Your task to perform on an android device: Is it going to rain today? Image 0: 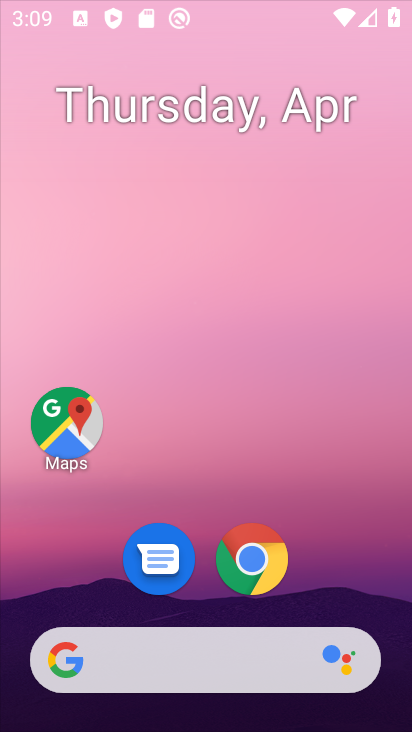
Step 0: click (229, 176)
Your task to perform on an android device: Is it going to rain today? Image 1: 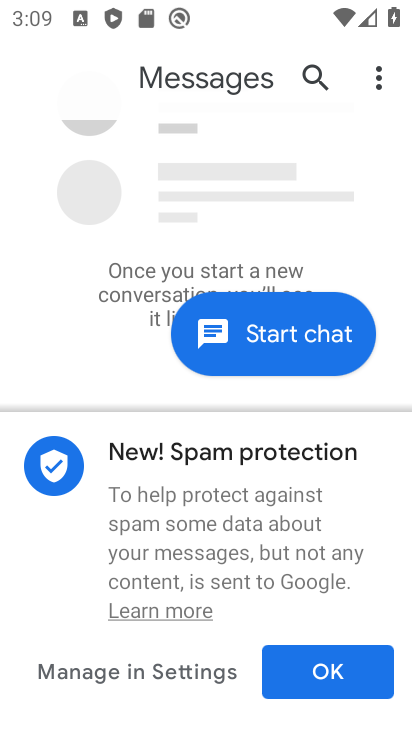
Step 1: press home button
Your task to perform on an android device: Is it going to rain today? Image 2: 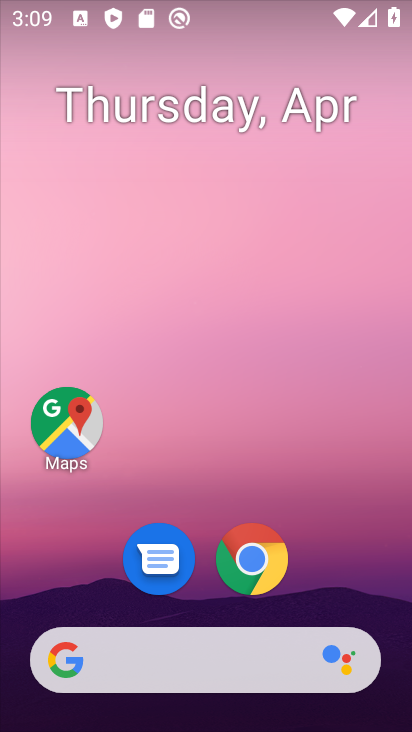
Step 2: drag from (199, 602) to (219, 173)
Your task to perform on an android device: Is it going to rain today? Image 3: 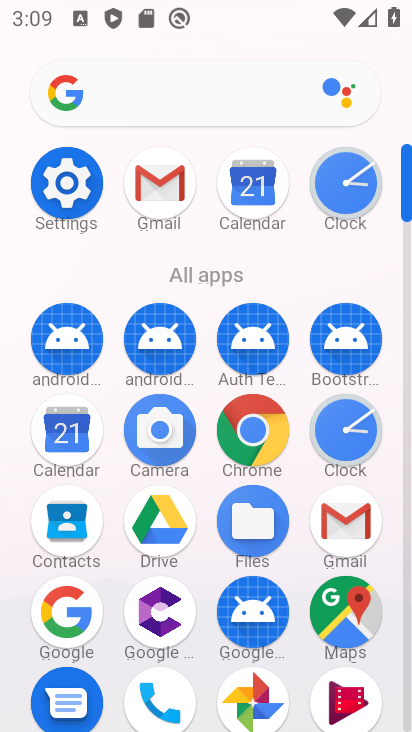
Step 3: click (74, 622)
Your task to perform on an android device: Is it going to rain today? Image 4: 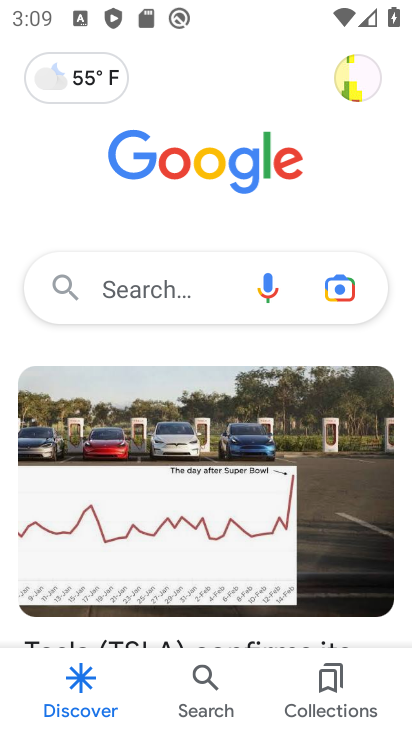
Step 4: click (175, 269)
Your task to perform on an android device: Is it going to rain today? Image 5: 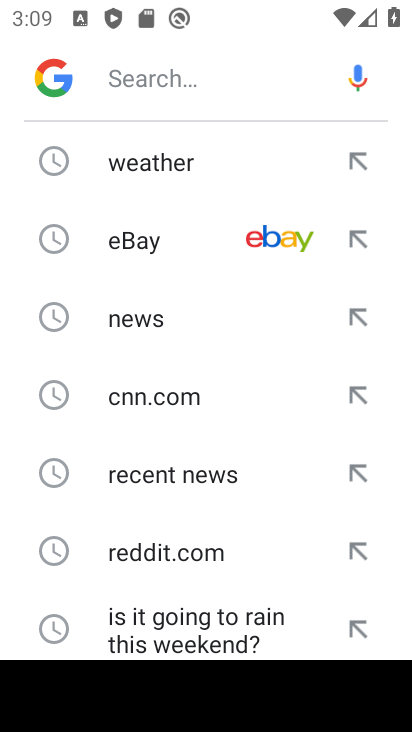
Step 5: click (139, 173)
Your task to perform on an android device: Is it going to rain today? Image 6: 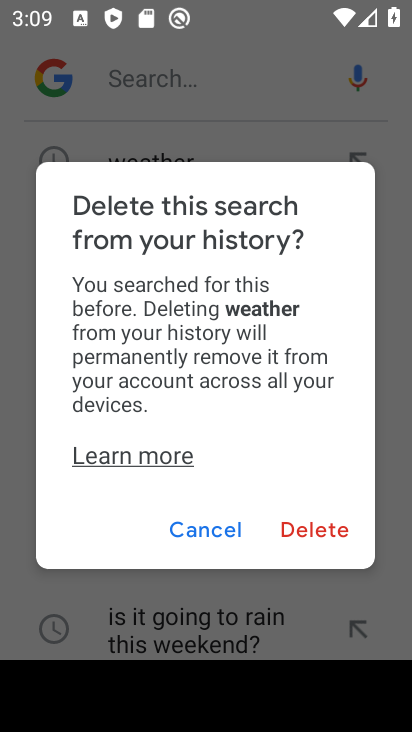
Step 6: click (207, 519)
Your task to perform on an android device: Is it going to rain today? Image 7: 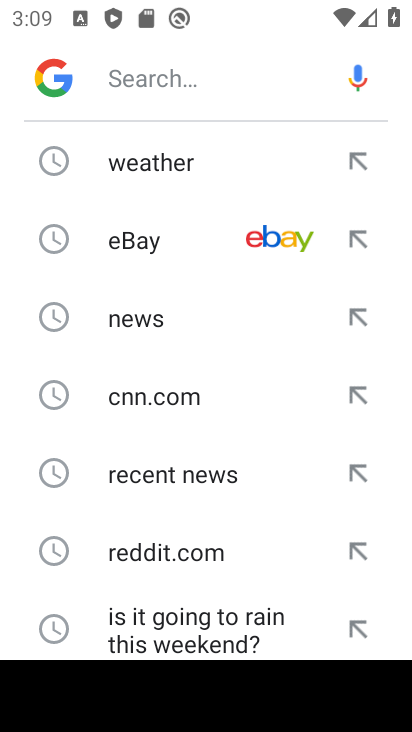
Step 7: click (113, 173)
Your task to perform on an android device: Is it going to rain today? Image 8: 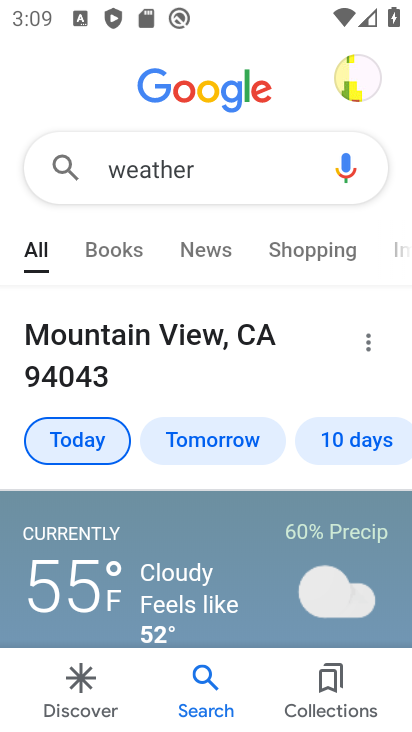
Step 8: task complete